Your task to perform on an android device: Open calendar and show me the second week of next month Image 0: 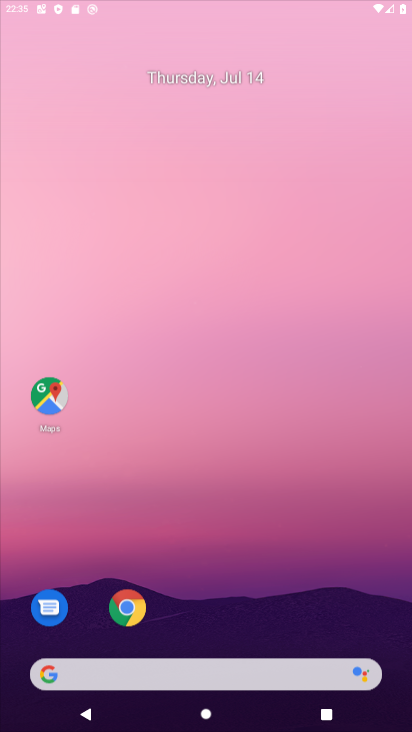
Step 0: press home button
Your task to perform on an android device: Open calendar and show me the second week of next month Image 1: 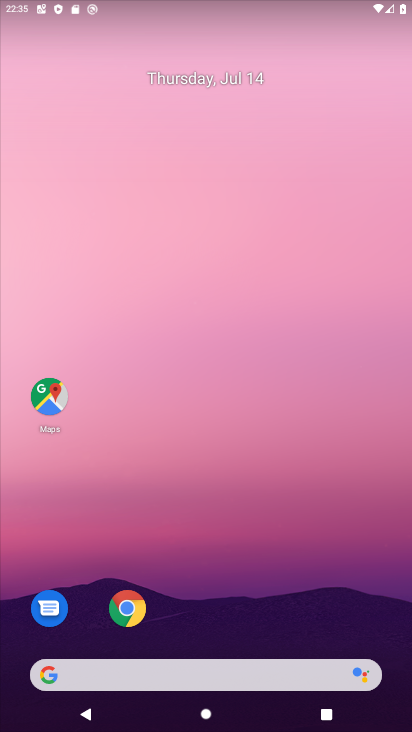
Step 1: press home button
Your task to perform on an android device: Open calendar and show me the second week of next month Image 2: 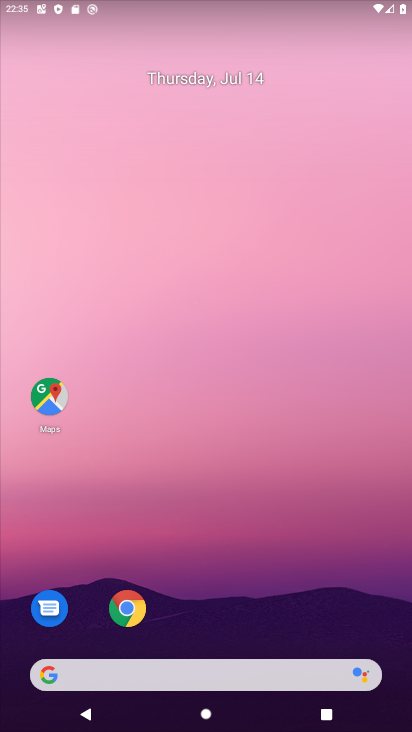
Step 2: drag from (198, 607) to (198, 270)
Your task to perform on an android device: Open calendar and show me the second week of next month Image 3: 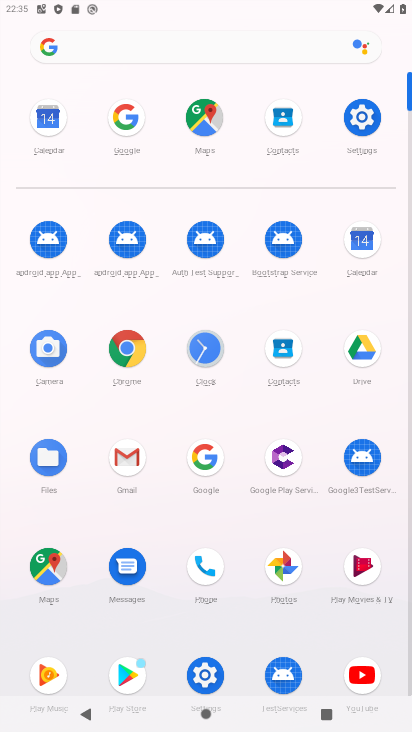
Step 3: click (364, 247)
Your task to perform on an android device: Open calendar and show me the second week of next month Image 4: 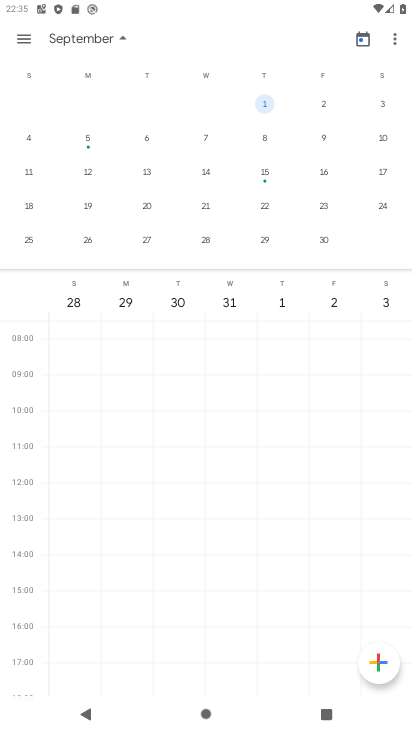
Step 4: drag from (125, 188) to (404, 189)
Your task to perform on an android device: Open calendar and show me the second week of next month Image 5: 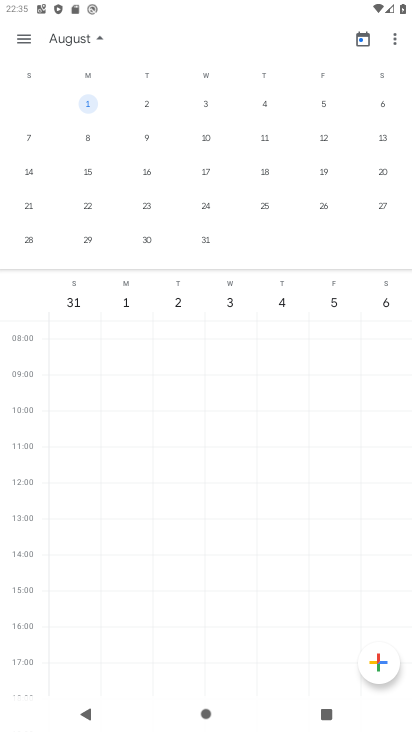
Step 5: click (30, 139)
Your task to perform on an android device: Open calendar and show me the second week of next month Image 6: 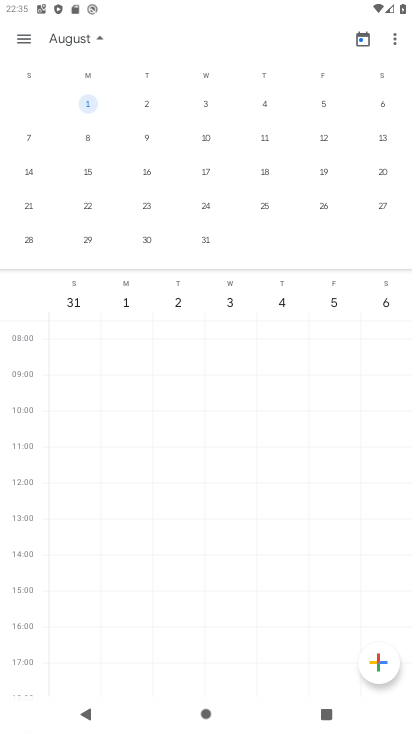
Step 6: click (30, 139)
Your task to perform on an android device: Open calendar and show me the second week of next month Image 7: 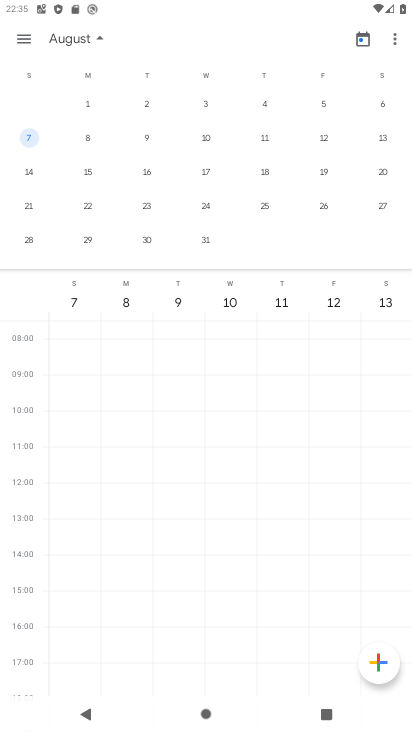
Step 7: task complete